Your task to perform on an android device: open app "Truecaller" (install if not already installed) and go to login screen Image 0: 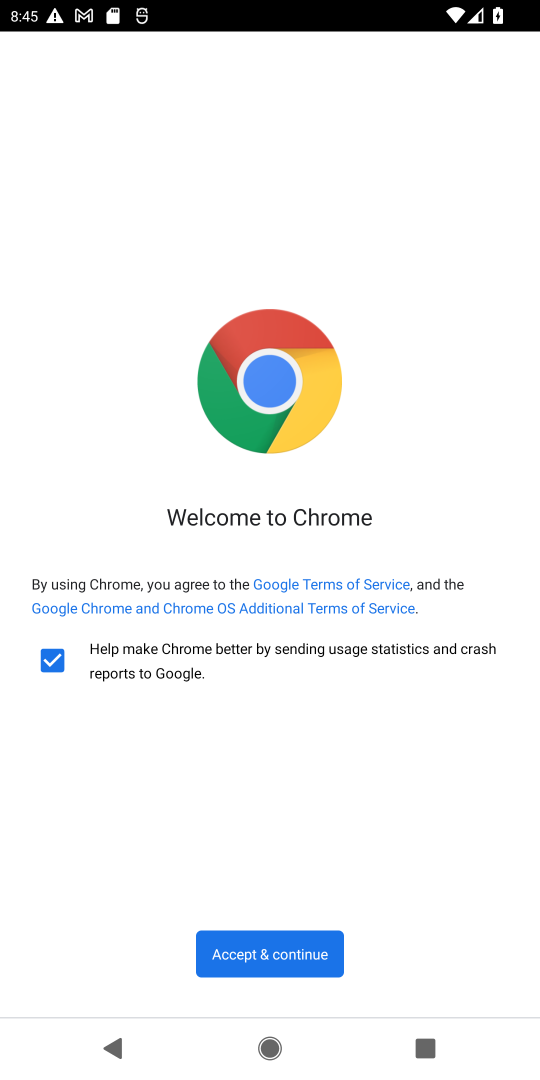
Step 0: press home button
Your task to perform on an android device: open app "Truecaller" (install if not already installed) and go to login screen Image 1: 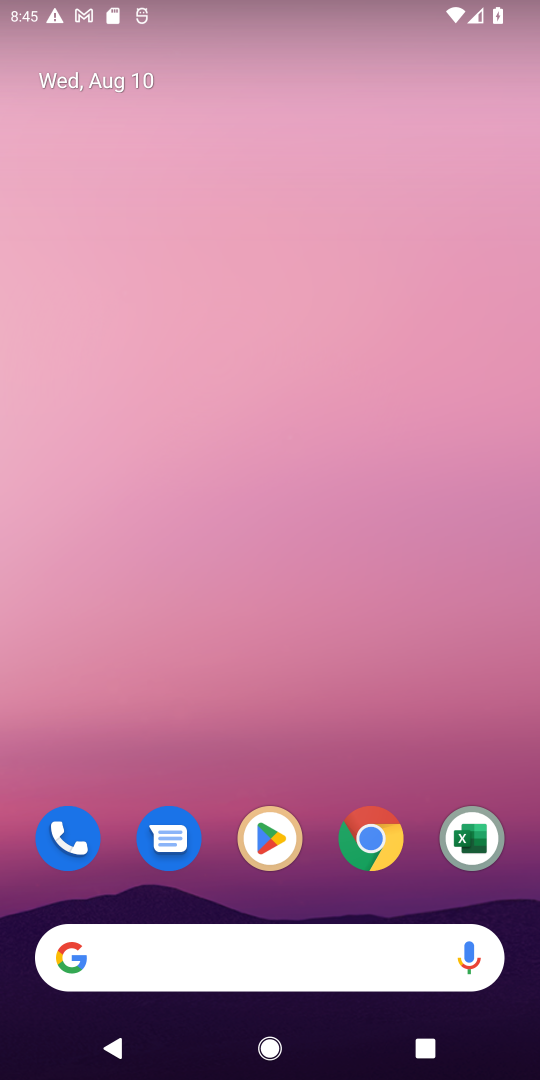
Step 1: drag from (312, 899) to (410, 134)
Your task to perform on an android device: open app "Truecaller" (install if not already installed) and go to login screen Image 2: 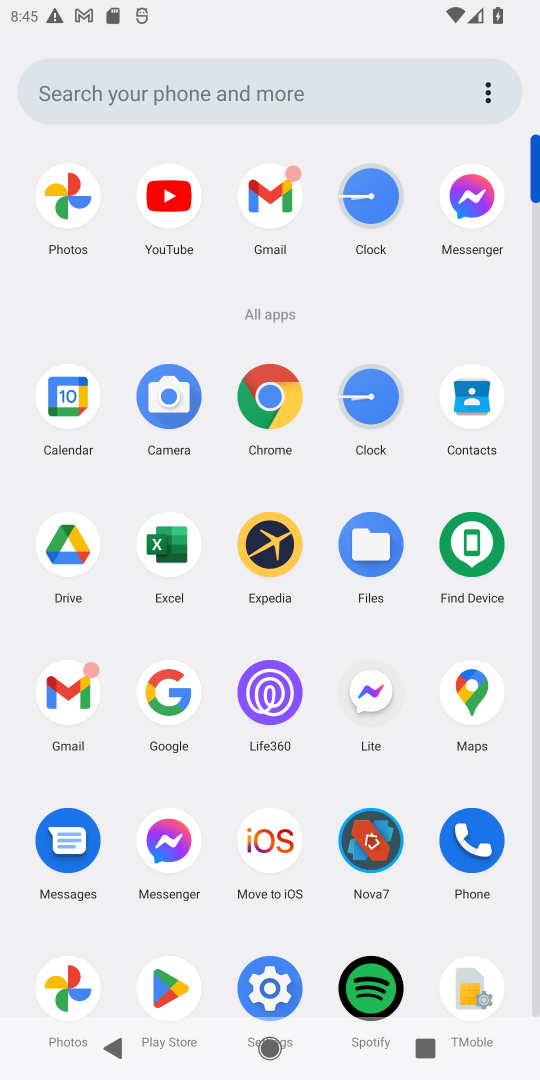
Step 2: click (164, 979)
Your task to perform on an android device: open app "Truecaller" (install if not already installed) and go to login screen Image 3: 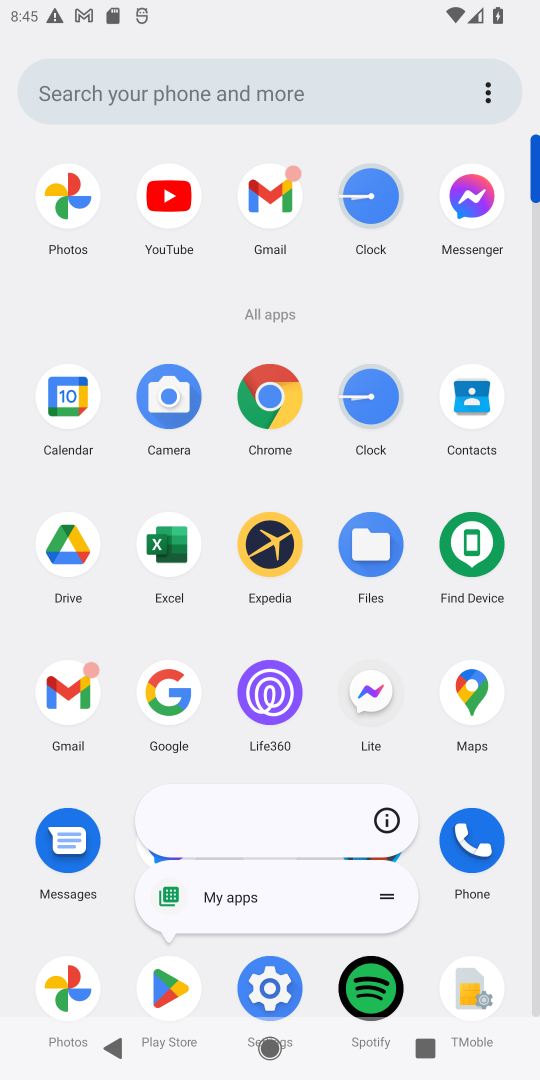
Step 3: click (164, 979)
Your task to perform on an android device: open app "Truecaller" (install if not already installed) and go to login screen Image 4: 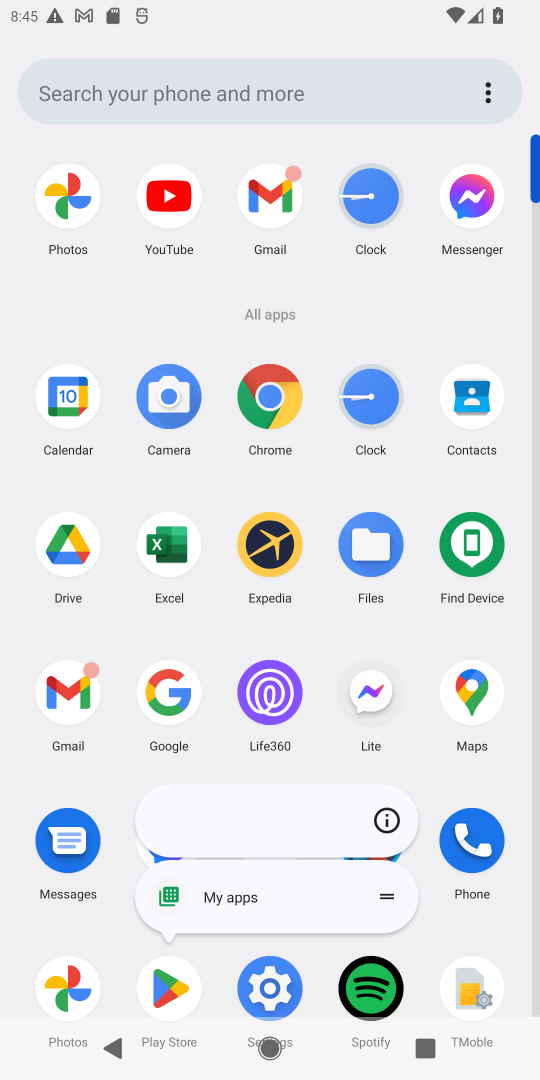
Step 4: click (164, 979)
Your task to perform on an android device: open app "Truecaller" (install if not already installed) and go to login screen Image 5: 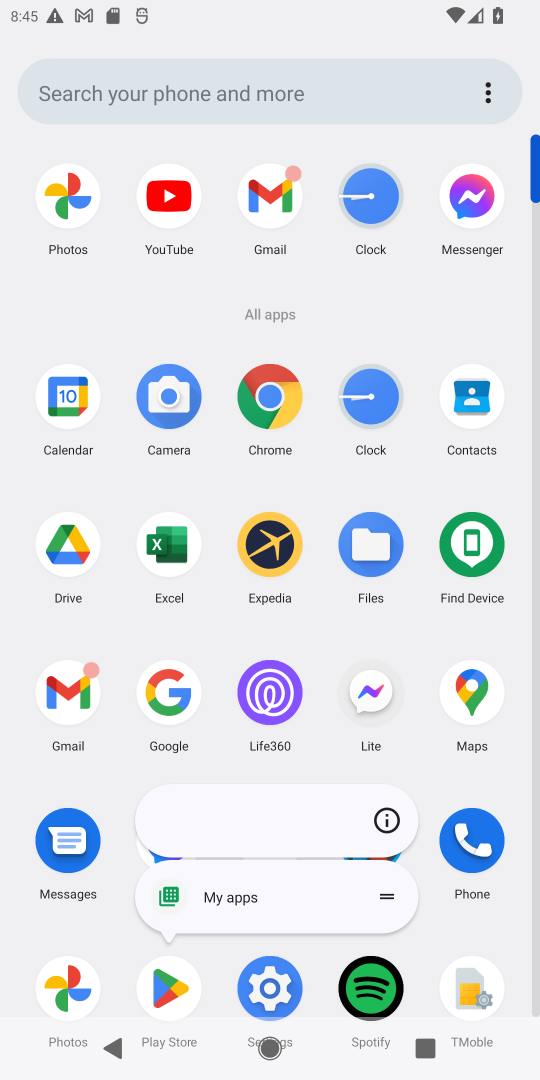
Step 5: click (318, 964)
Your task to perform on an android device: open app "Truecaller" (install if not already installed) and go to login screen Image 6: 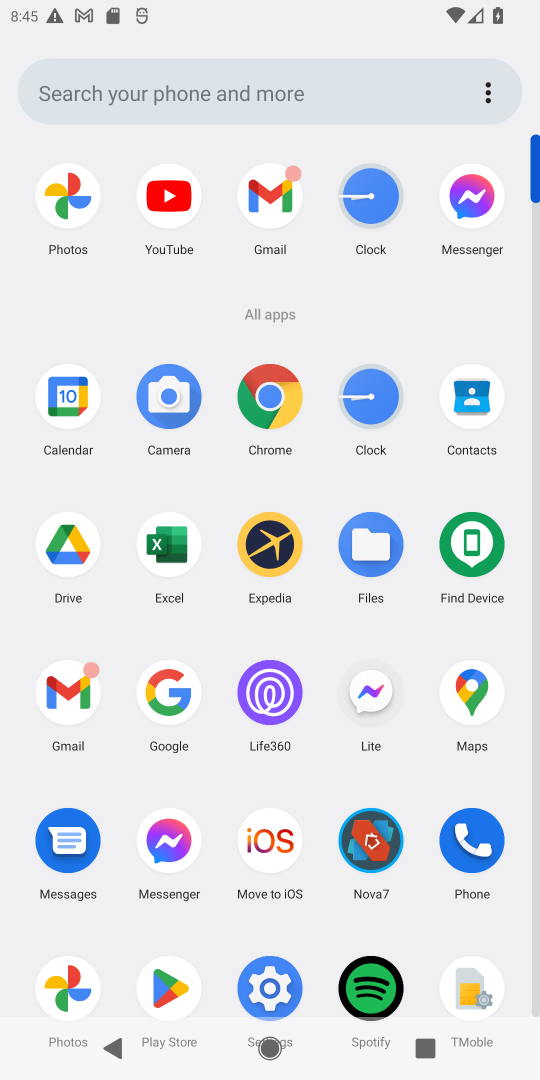
Step 6: click (172, 978)
Your task to perform on an android device: open app "Truecaller" (install if not already installed) and go to login screen Image 7: 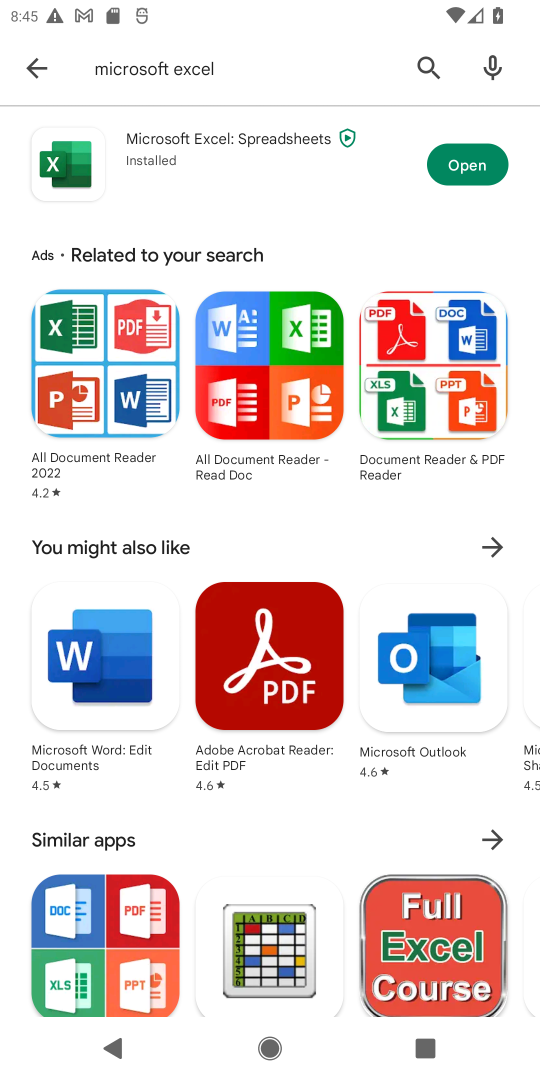
Step 7: click (417, 64)
Your task to perform on an android device: open app "Truecaller" (install if not already installed) and go to login screen Image 8: 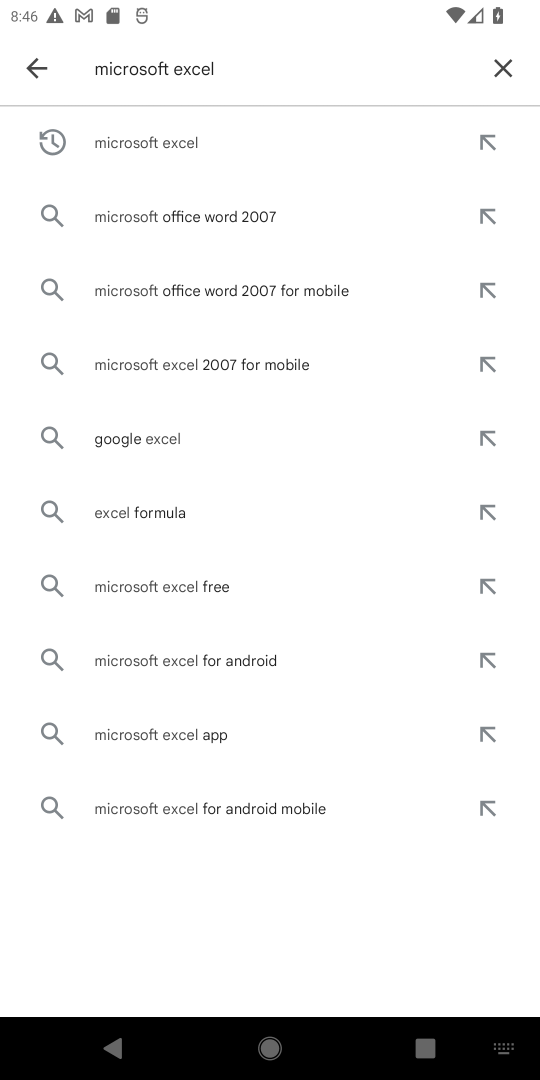
Step 8: click (500, 70)
Your task to perform on an android device: open app "Truecaller" (install if not already installed) and go to login screen Image 9: 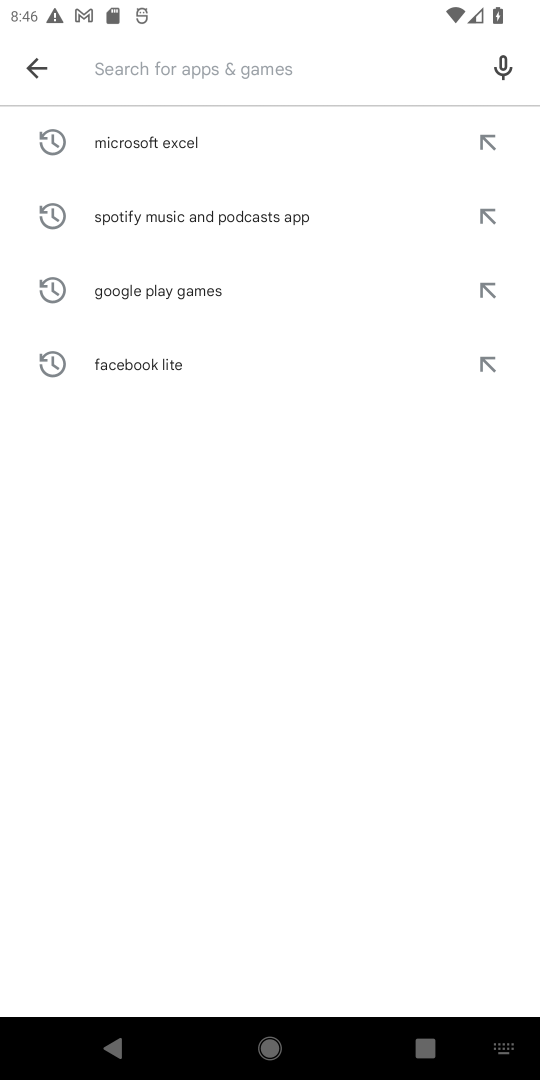
Step 9: type "truecaller"
Your task to perform on an android device: open app "Truecaller" (install if not already installed) and go to login screen Image 10: 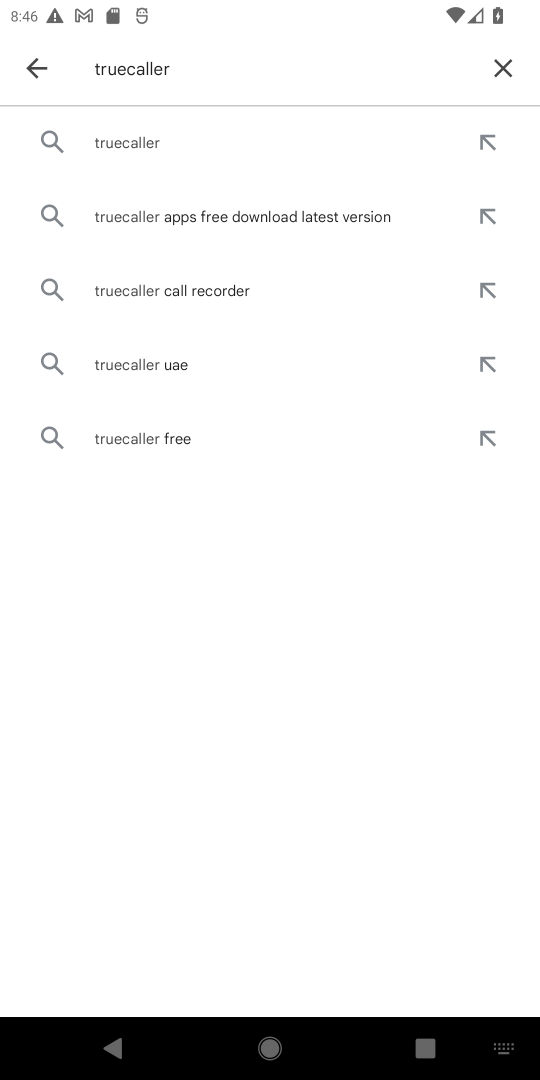
Step 10: click (175, 141)
Your task to perform on an android device: open app "Truecaller" (install if not already installed) and go to login screen Image 11: 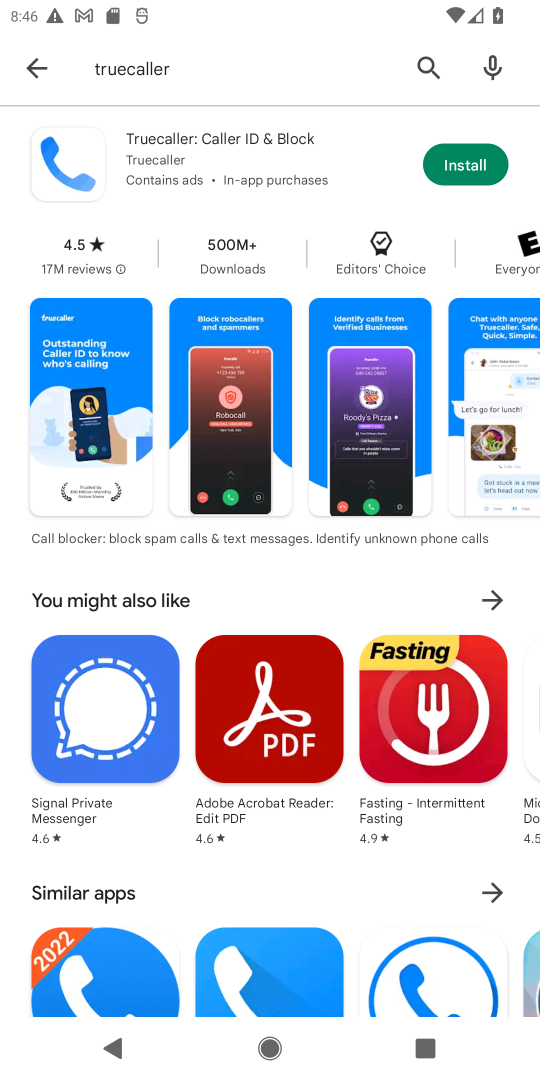
Step 11: click (474, 165)
Your task to perform on an android device: open app "Truecaller" (install if not already installed) and go to login screen Image 12: 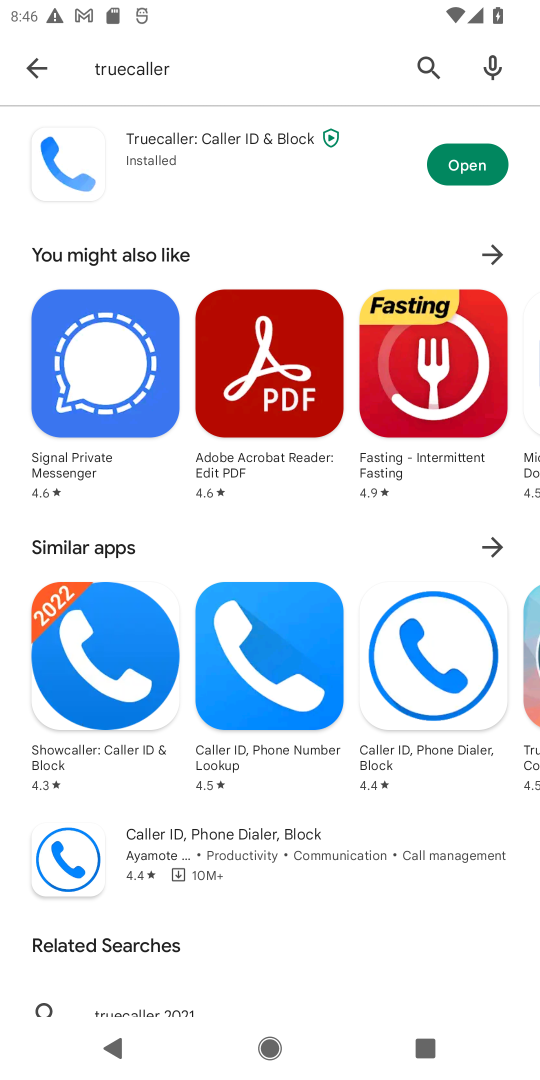
Step 12: click (474, 168)
Your task to perform on an android device: open app "Truecaller" (install if not already installed) and go to login screen Image 13: 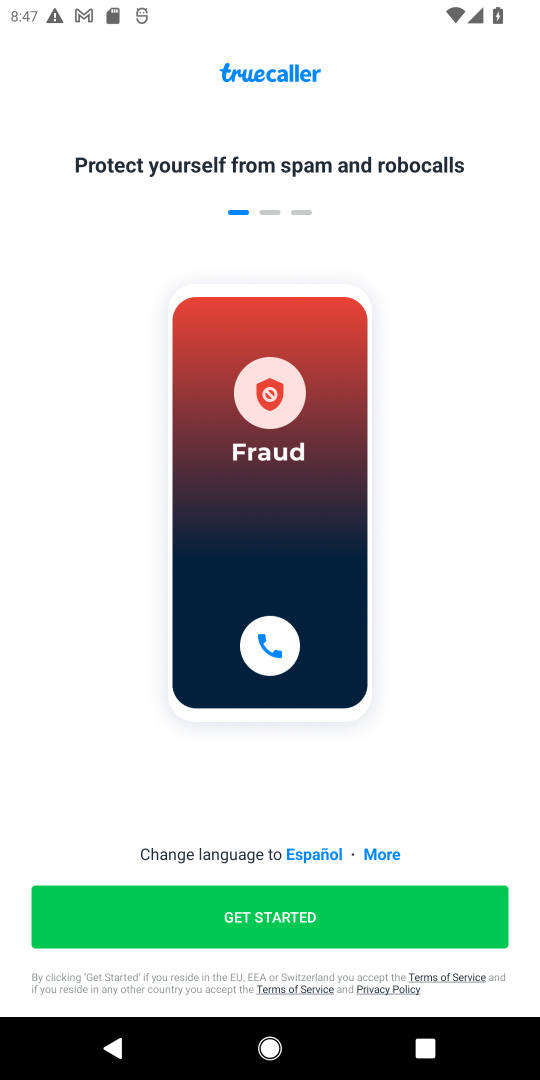
Step 13: click (274, 910)
Your task to perform on an android device: open app "Truecaller" (install if not already installed) and go to login screen Image 14: 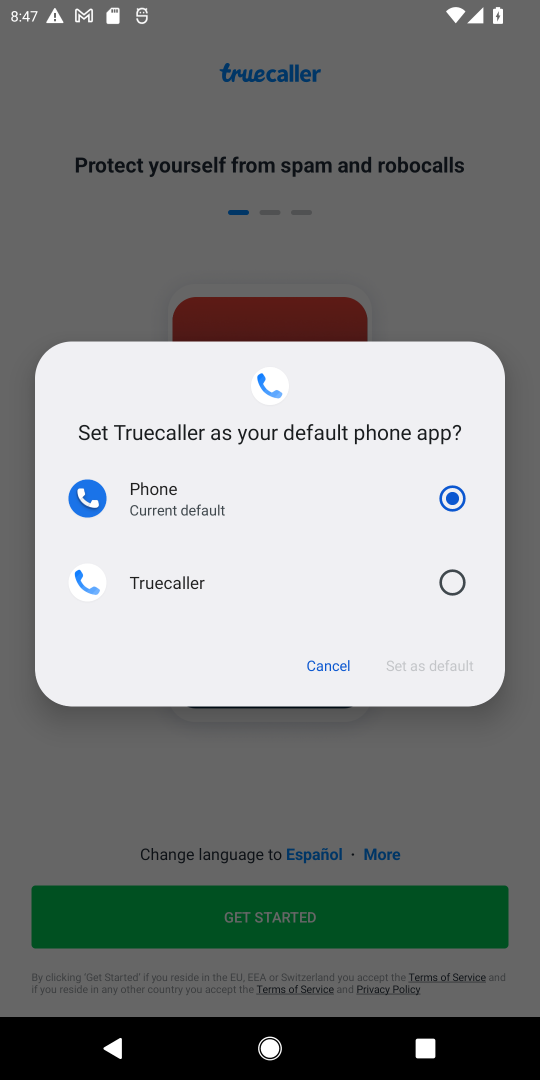
Step 14: click (456, 584)
Your task to perform on an android device: open app "Truecaller" (install if not already installed) and go to login screen Image 15: 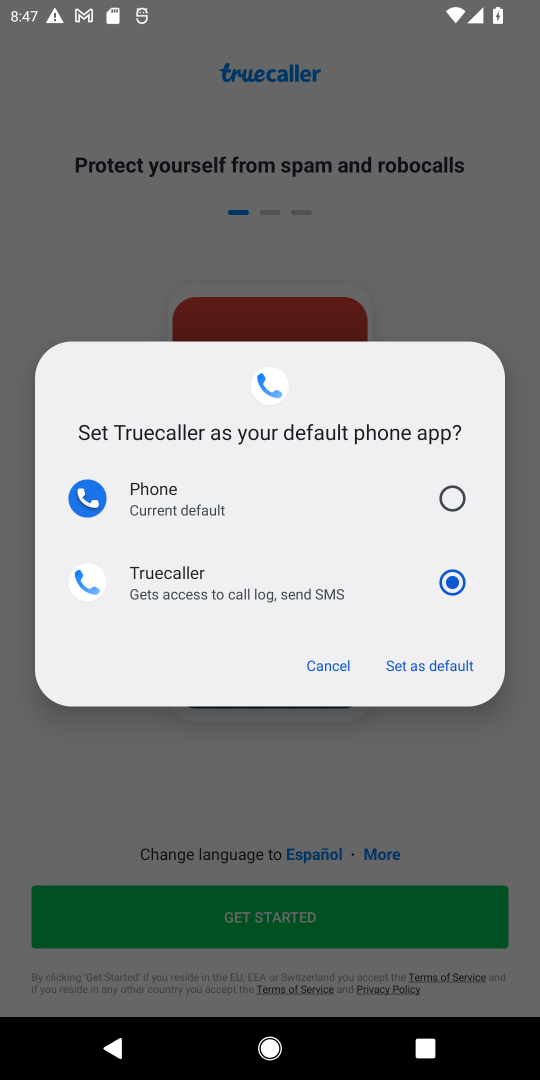
Step 15: click (431, 659)
Your task to perform on an android device: open app "Truecaller" (install if not already installed) and go to login screen Image 16: 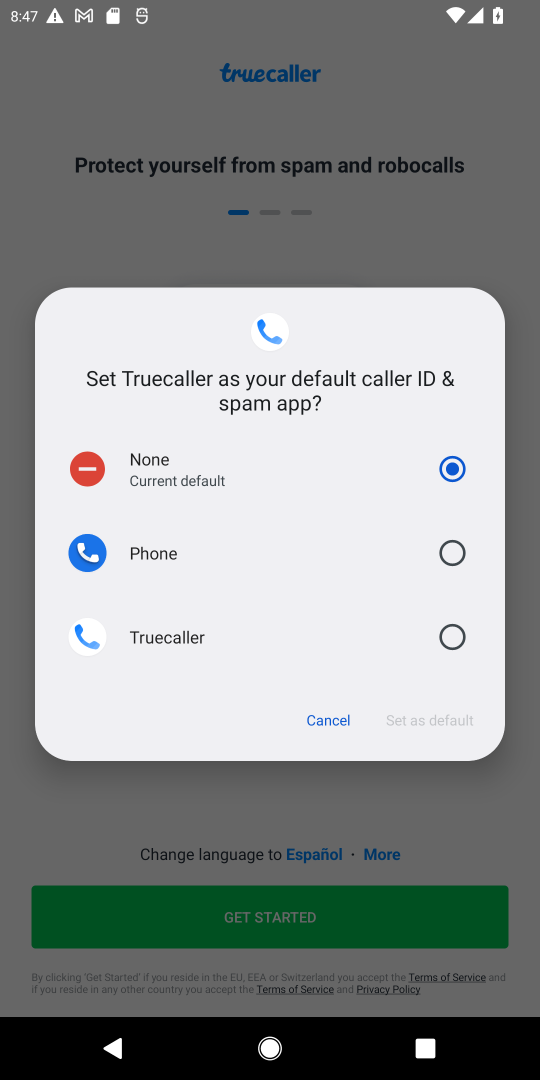
Step 16: click (462, 634)
Your task to perform on an android device: open app "Truecaller" (install if not already installed) and go to login screen Image 17: 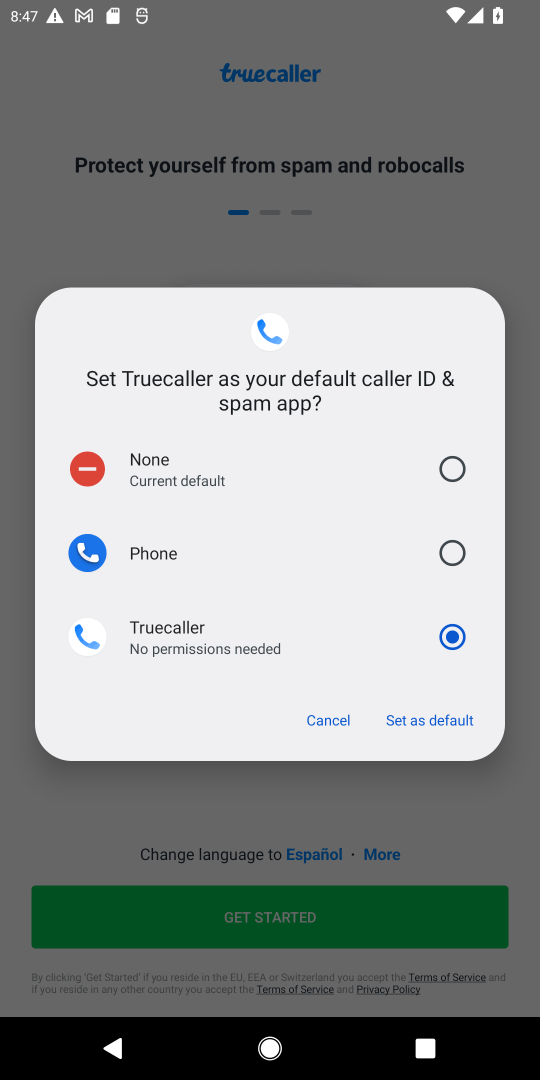
Step 17: click (442, 712)
Your task to perform on an android device: open app "Truecaller" (install if not already installed) and go to login screen Image 18: 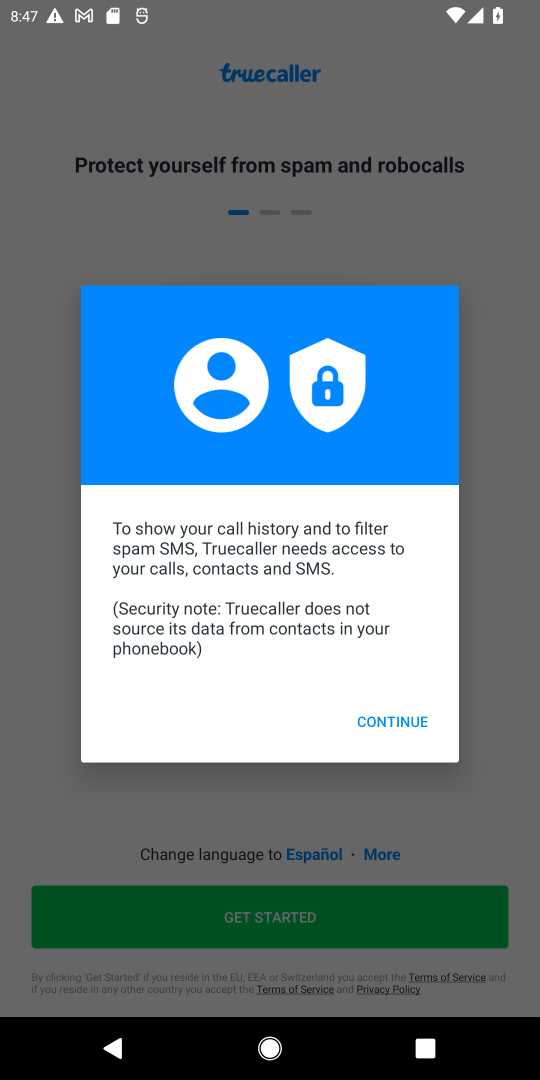
Step 18: click (405, 722)
Your task to perform on an android device: open app "Truecaller" (install if not already installed) and go to login screen Image 19: 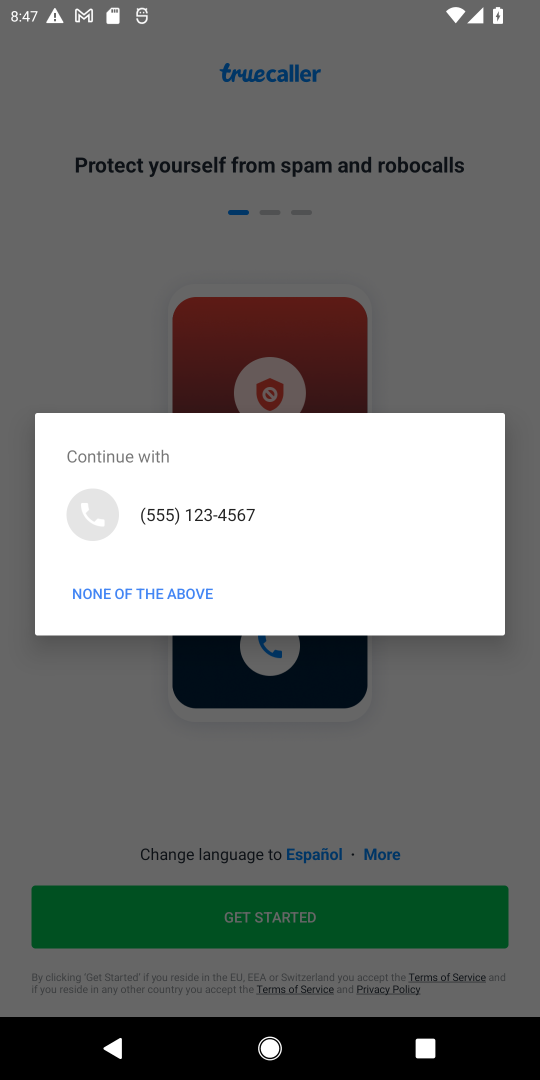
Step 19: click (134, 545)
Your task to perform on an android device: open app "Truecaller" (install if not already installed) and go to login screen Image 20: 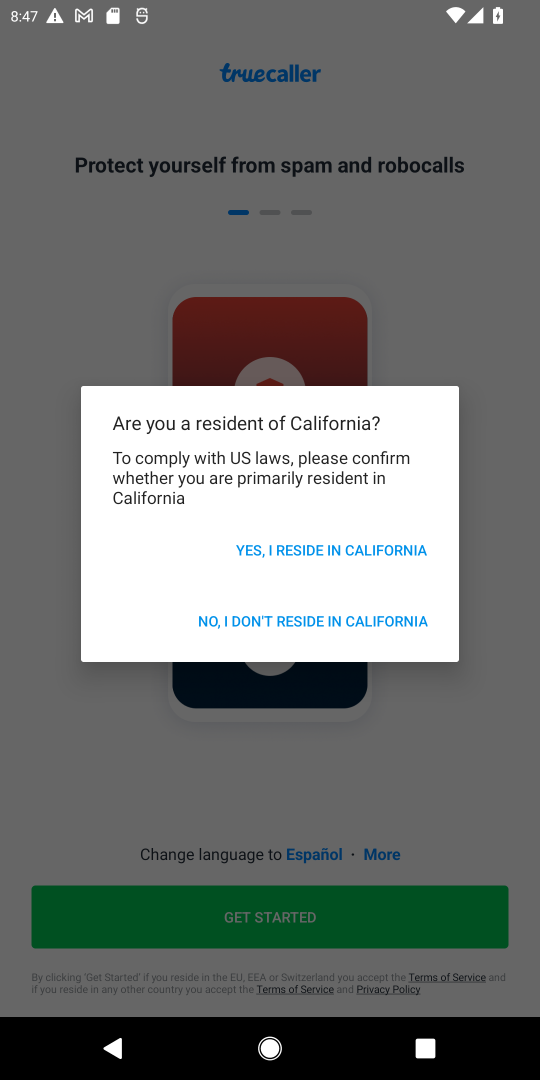
Step 20: click (296, 564)
Your task to perform on an android device: open app "Truecaller" (install if not already installed) and go to login screen Image 21: 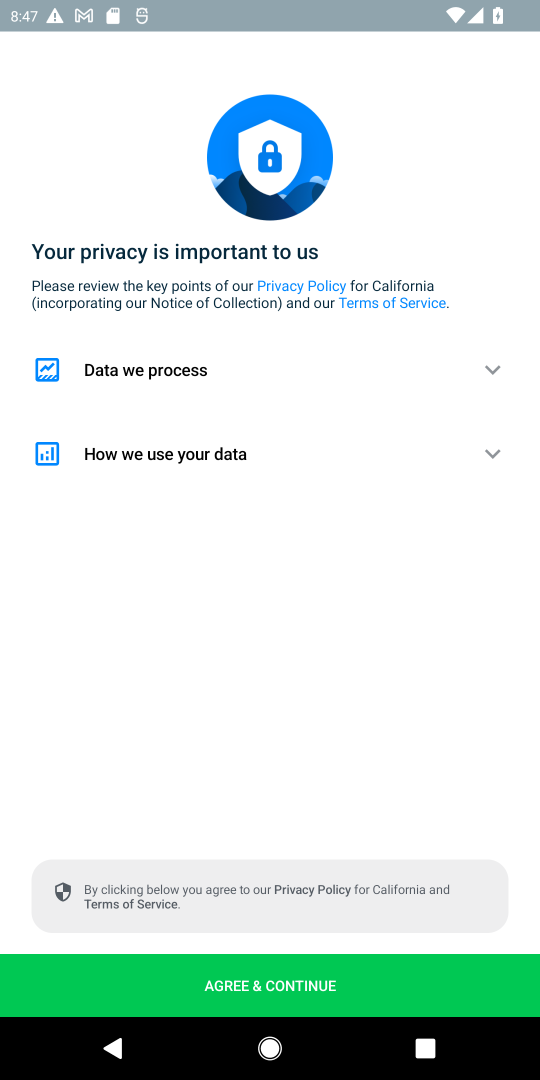
Step 21: click (326, 992)
Your task to perform on an android device: open app "Truecaller" (install if not already installed) and go to login screen Image 22: 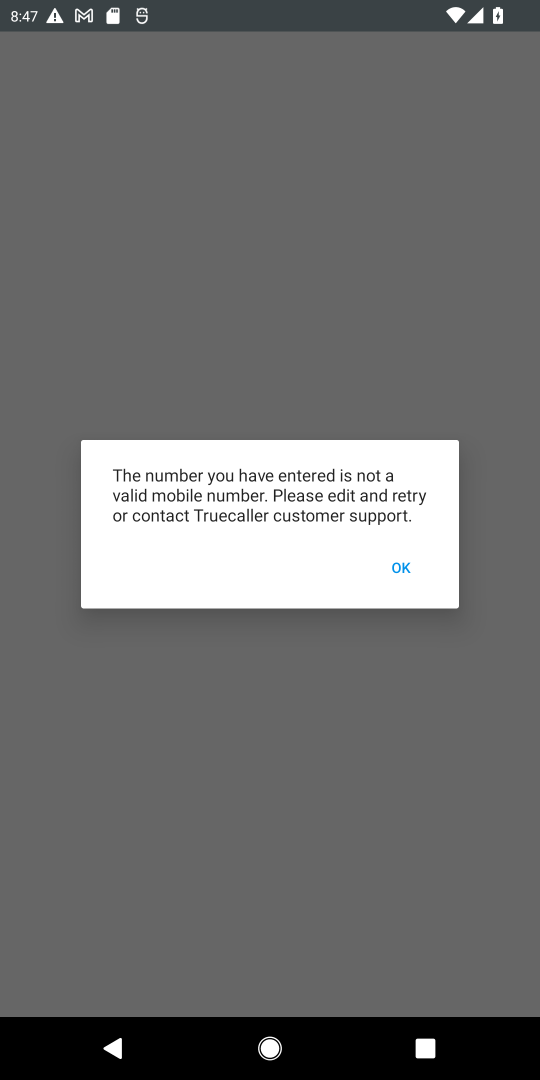
Step 22: click (404, 569)
Your task to perform on an android device: open app "Truecaller" (install if not already installed) and go to login screen Image 23: 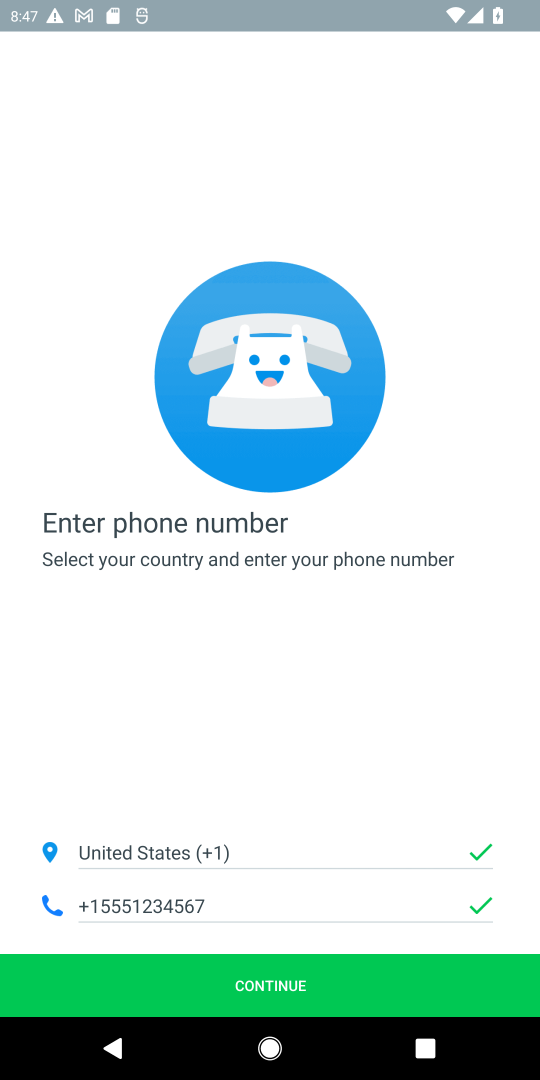
Step 23: click (271, 988)
Your task to perform on an android device: open app "Truecaller" (install if not already installed) and go to login screen Image 24: 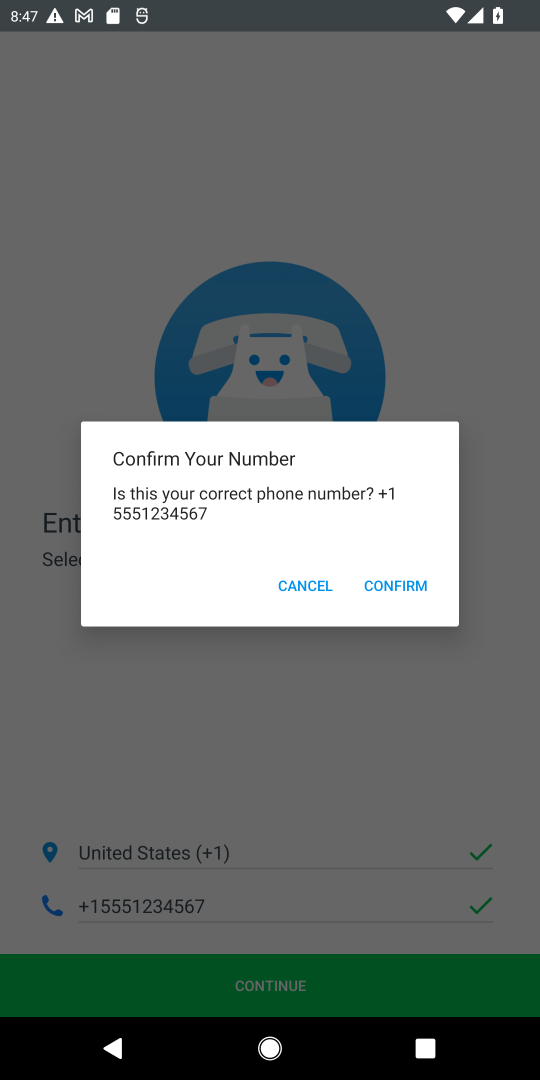
Step 24: click (399, 593)
Your task to perform on an android device: open app "Truecaller" (install if not already installed) and go to login screen Image 25: 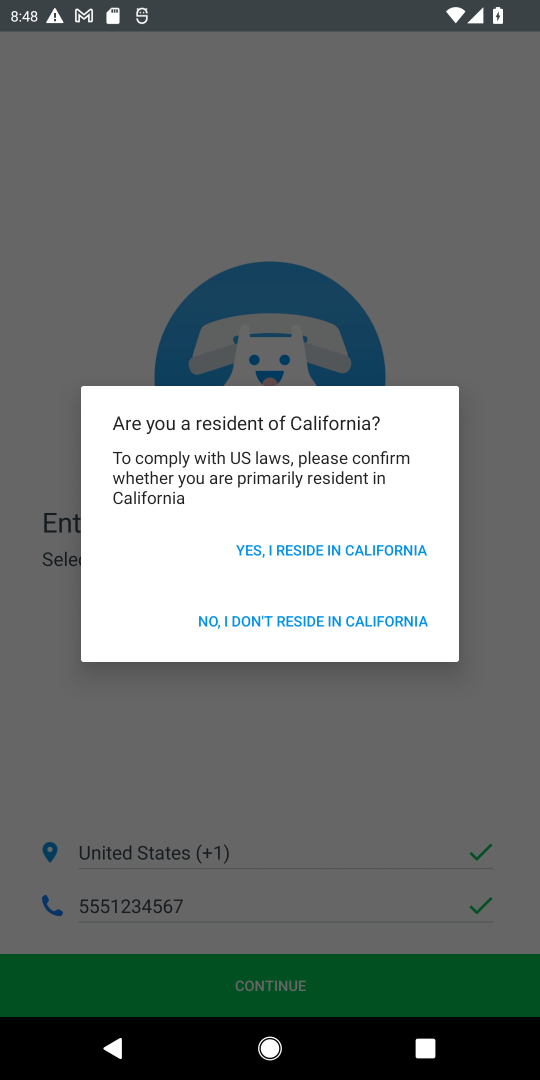
Step 25: click (382, 630)
Your task to perform on an android device: open app "Truecaller" (install if not already installed) and go to login screen Image 26: 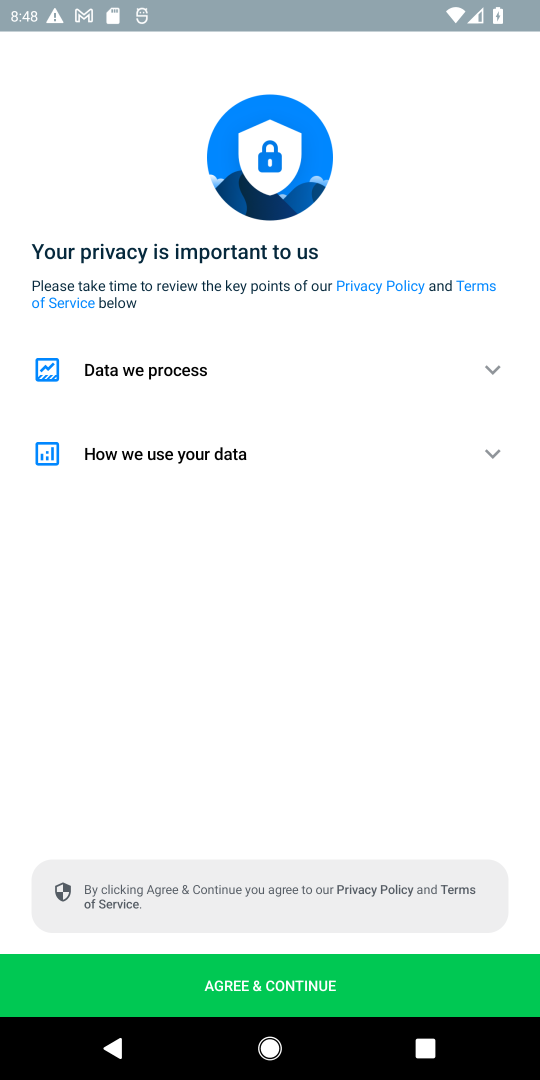
Step 26: click (257, 972)
Your task to perform on an android device: open app "Truecaller" (install if not already installed) and go to login screen Image 27: 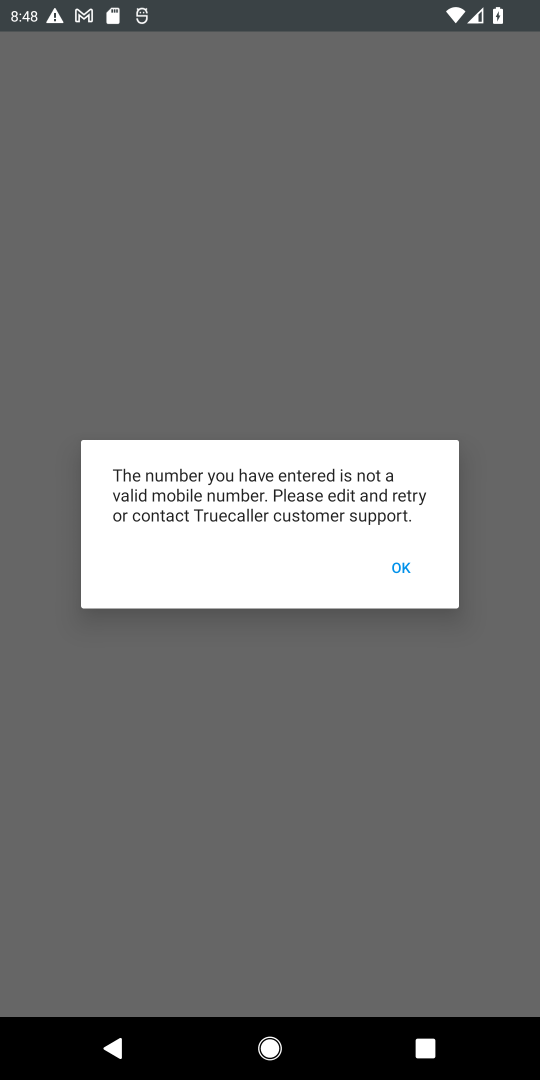
Step 27: click (386, 557)
Your task to perform on an android device: open app "Truecaller" (install if not already installed) and go to login screen Image 28: 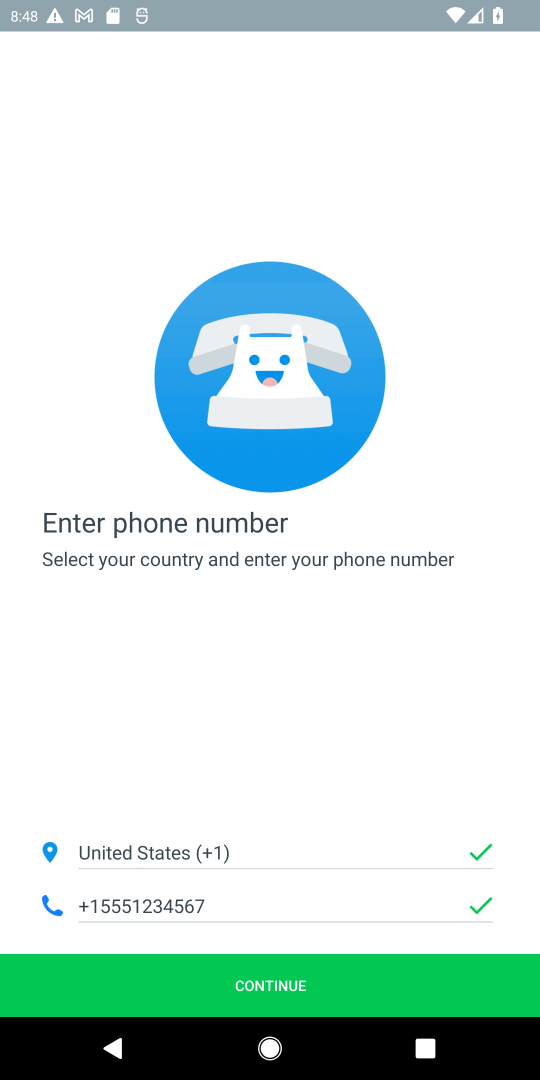
Step 28: task complete